Your task to perform on an android device: Go to Amazon Image 0: 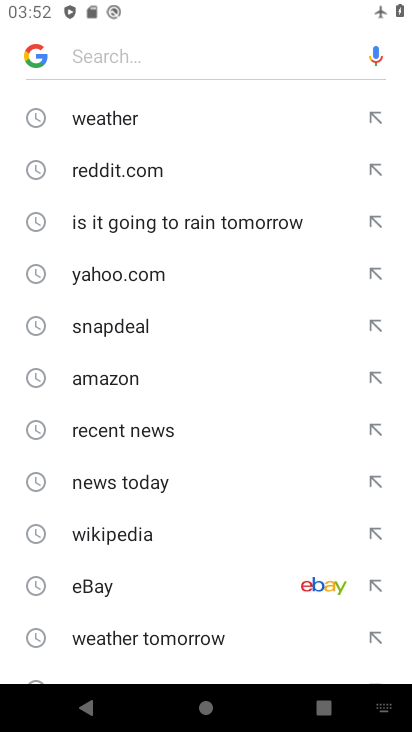
Step 0: press home button
Your task to perform on an android device: Go to Amazon Image 1: 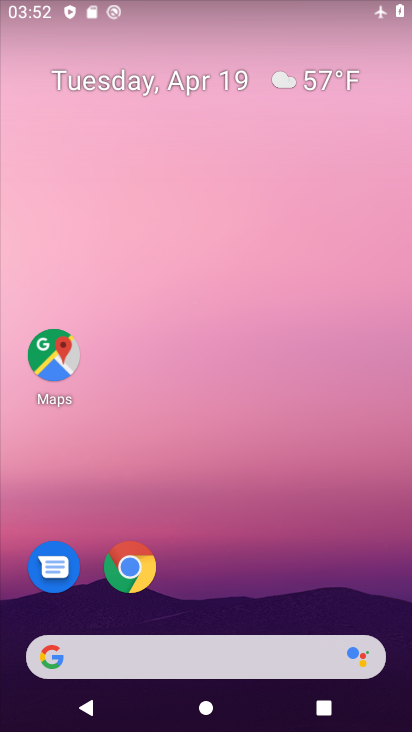
Step 1: drag from (339, 571) to (336, 170)
Your task to perform on an android device: Go to Amazon Image 2: 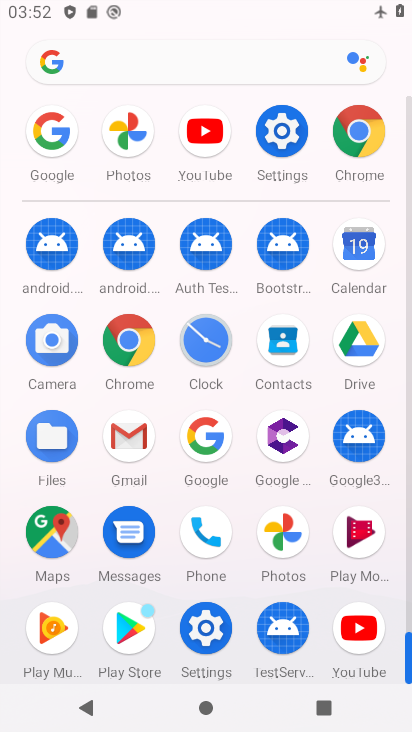
Step 2: click (127, 342)
Your task to perform on an android device: Go to Amazon Image 3: 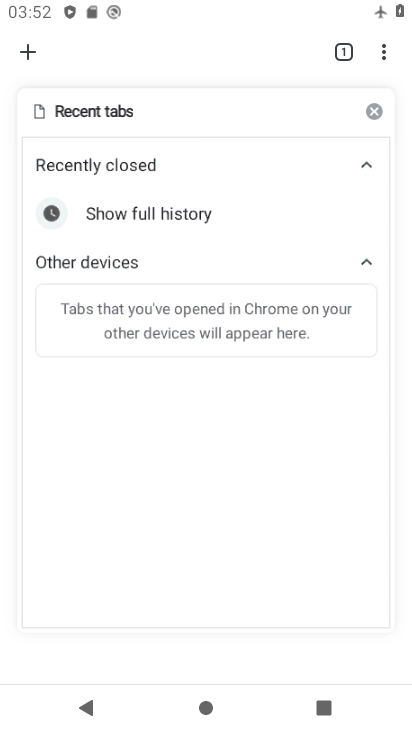
Step 3: click (31, 49)
Your task to perform on an android device: Go to Amazon Image 4: 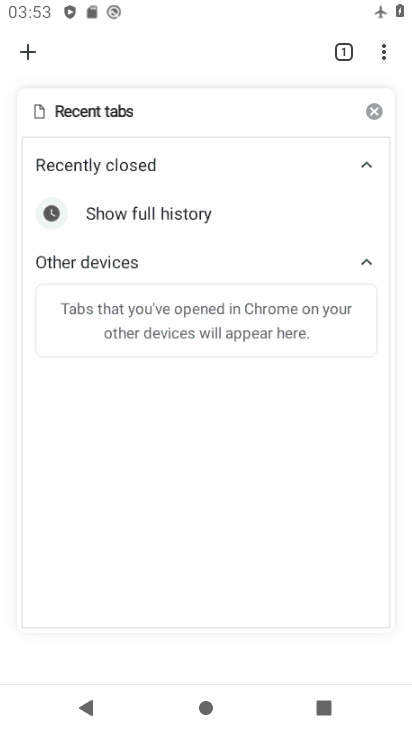
Step 4: click (25, 42)
Your task to perform on an android device: Go to Amazon Image 5: 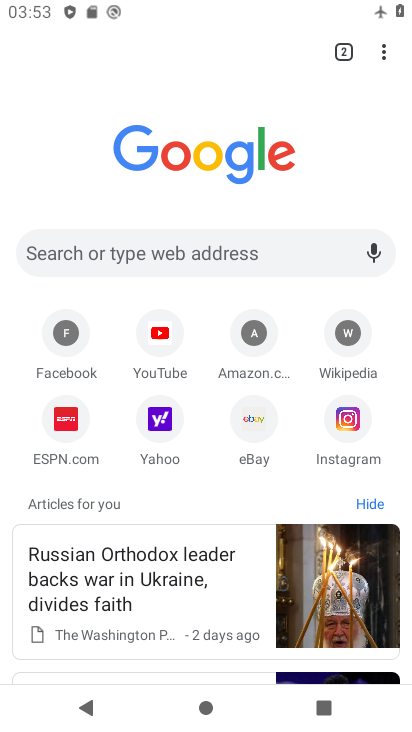
Step 5: click (260, 345)
Your task to perform on an android device: Go to Amazon Image 6: 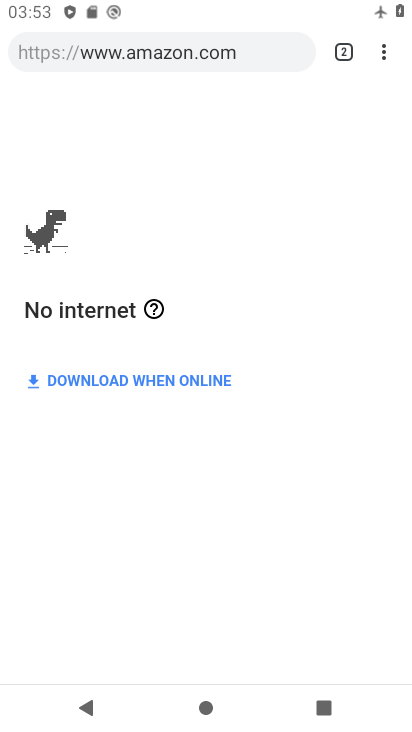
Step 6: task complete